Your task to perform on an android device: change notification settings in the gmail app Image 0: 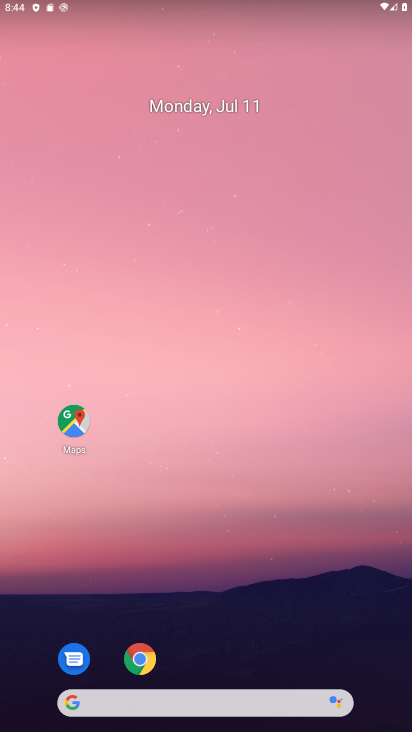
Step 0: drag from (221, 685) to (209, 131)
Your task to perform on an android device: change notification settings in the gmail app Image 1: 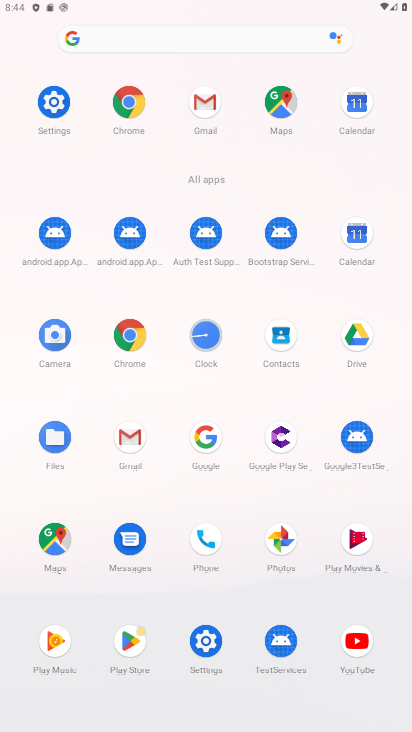
Step 1: click (136, 435)
Your task to perform on an android device: change notification settings in the gmail app Image 2: 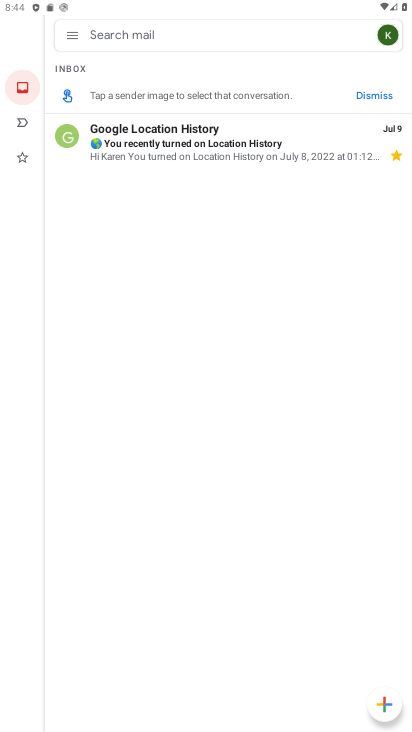
Step 2: click (74, 32)
Your task to perform on an android device: change notification settings in the gmail app Image 3: 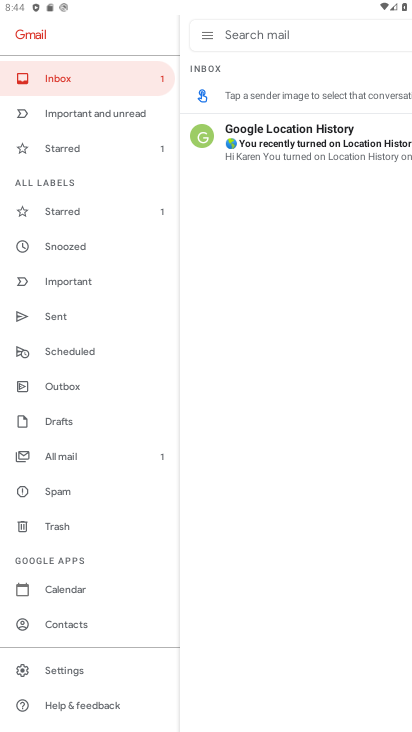
Step 3: click (64, 670)
Your task to perform on an android device: change notification settings in the gmail app Image 4: 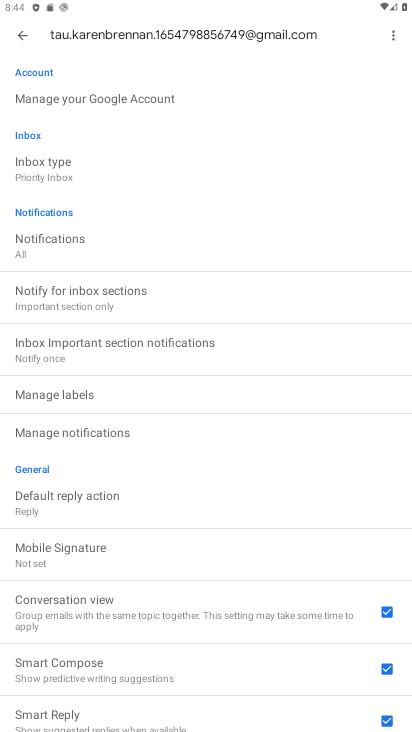
Step 4: click (61, 235)
Your task to perform on an android device: change notification settings in the gmail app Image 5: 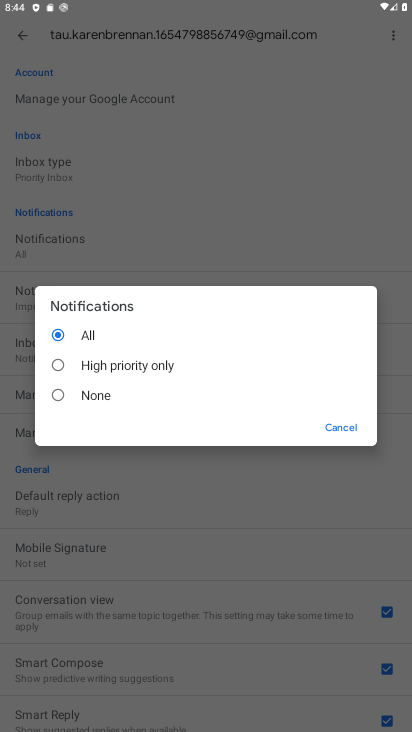
Step 5: click (59, 396)
Your task to perform on an android device: change notification settings in the gmail app Image 6: 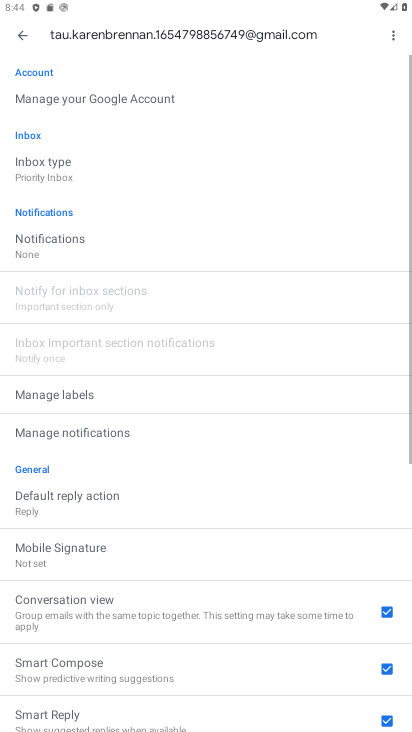
Step 6: task complete